Your task to perform on an android device: Open Google Chrome Image 0: 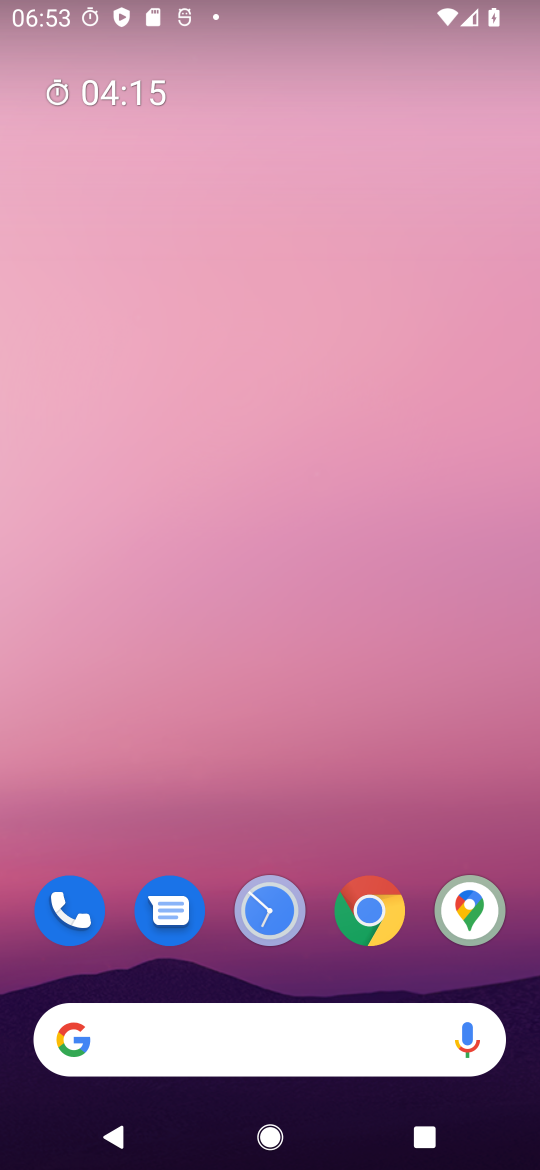
Step 0: drag from (229, 1033) to (357, 34)
Your task to perform on an android device: Open Google Chrome Image 1: 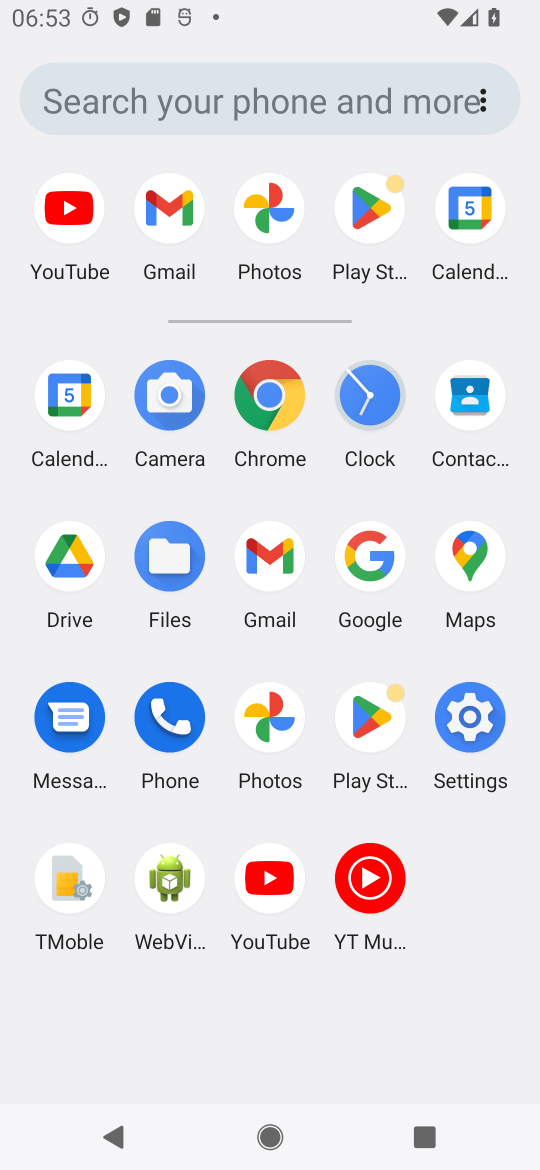
Step 1: click (250, 416)
Your task to perform on an android device: Open Google Chrome Image 2: 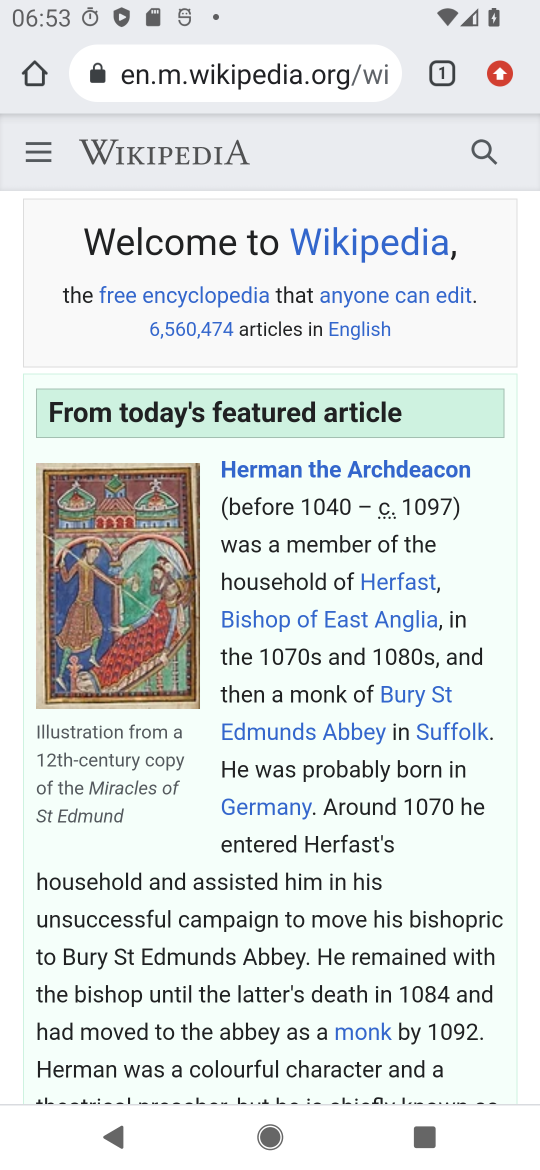
Step 2: task complete